Your task to perform on an android device: toggle translation in the chrome app Image 0: 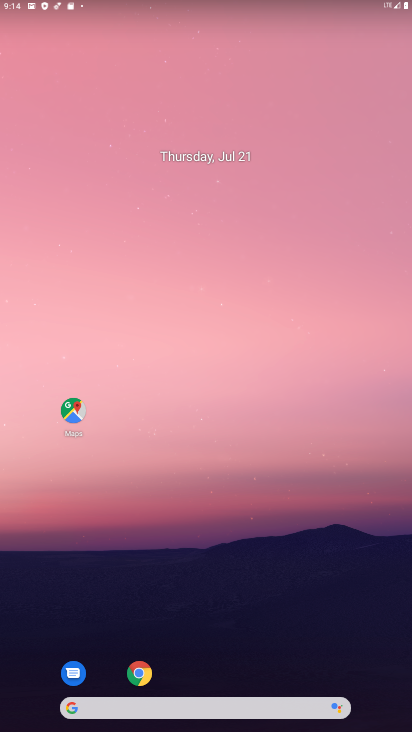
Step 0: drag from (202, 636) to (243, 250)
Your task to perform on an android device: toggle translation in the chrome app Image 1: 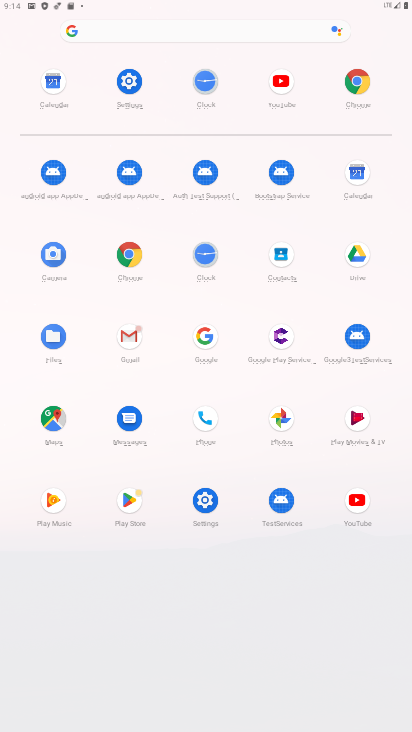
Step 1: click (126, 250)
Your task to perform on an android device: toggle translation in the chrome app Image 2: 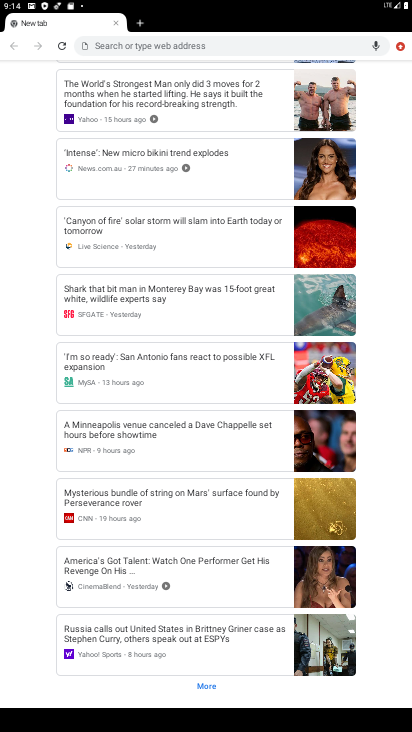
Step 2: drag from (400, 48) to (328, 236)
Your task to perform on an android device: toggle translation in the chrome app Image 3: 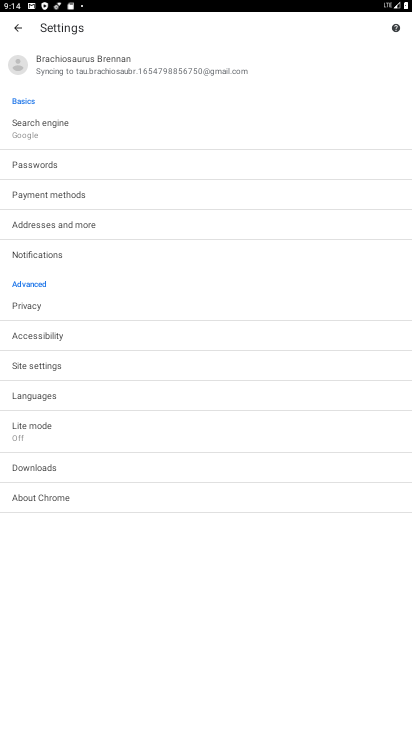
Step 3: click (37, 391)
Your task to perform on an android device: toggle translation in the chrome app Image 4: 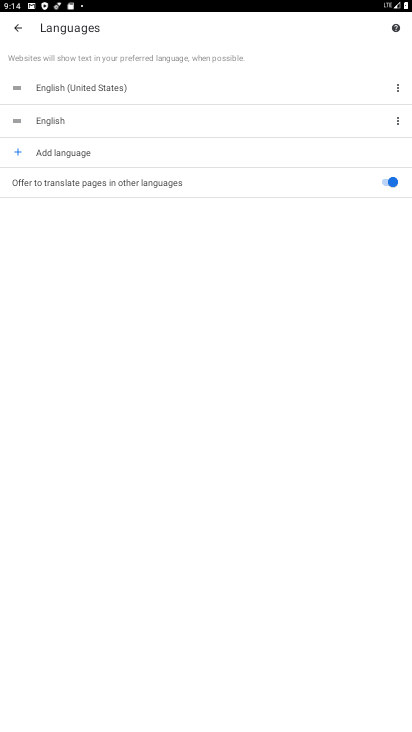
Step 4: click (387, 187)
Your task to perform on an android device: toggle translation in the chrome app Image 5: 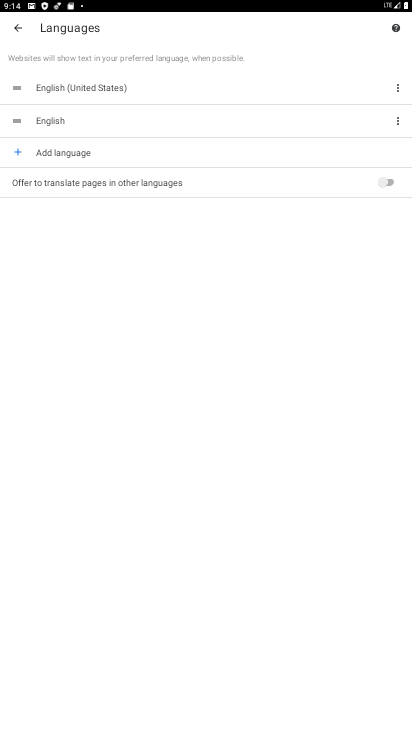
Step 5: task complete